Your task to perform on an android device: What's on my calendar tomorrow? Image 0: 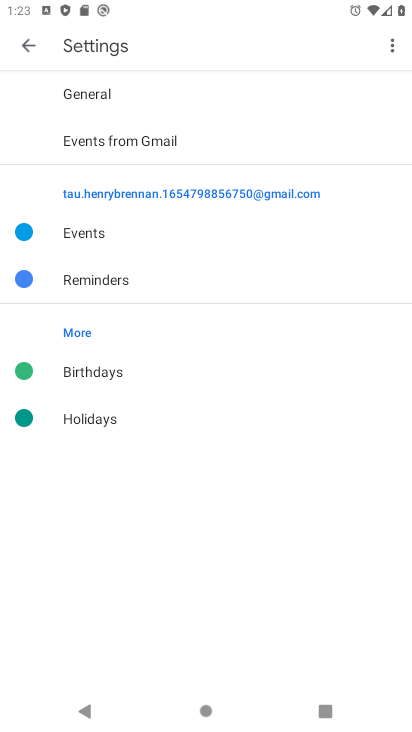
Step 0: press home button
Your task to perform on an android device: What's on my calendar tomorrow? Image 1: 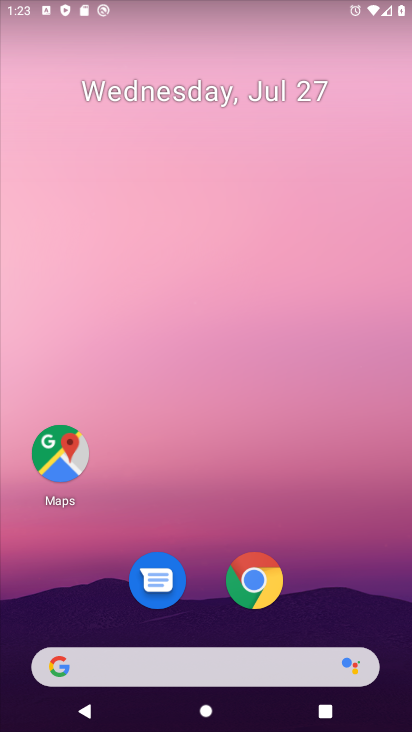
Step 1: drag from (250, 693) to (405, 61)
Your task to perform on an android device: What's on my calendar tomorrow? Image 2: 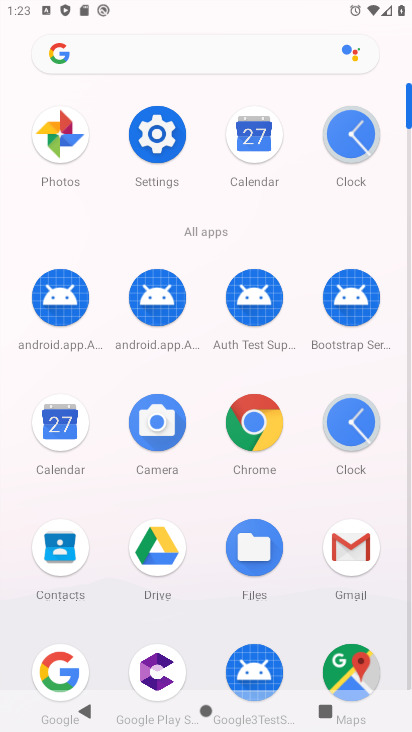
Step 2: click (63, 425)
Your task to perform on an android device: What's on my calendar tomorrow? Image 3: 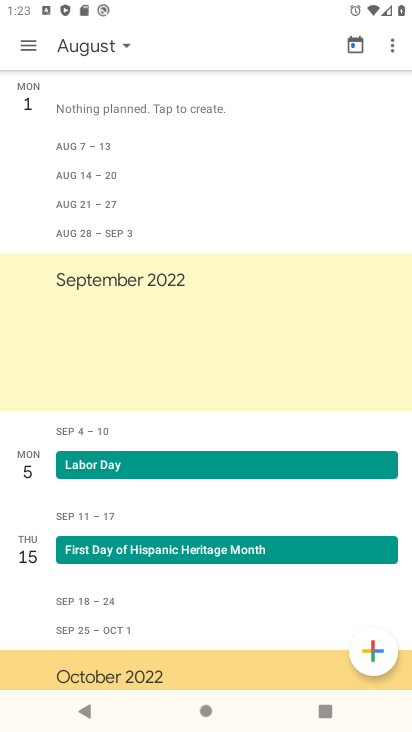
Step 3: click (27, 51)
Your task to perform on an android device: What's on my calendar tomorrow? Image 4: 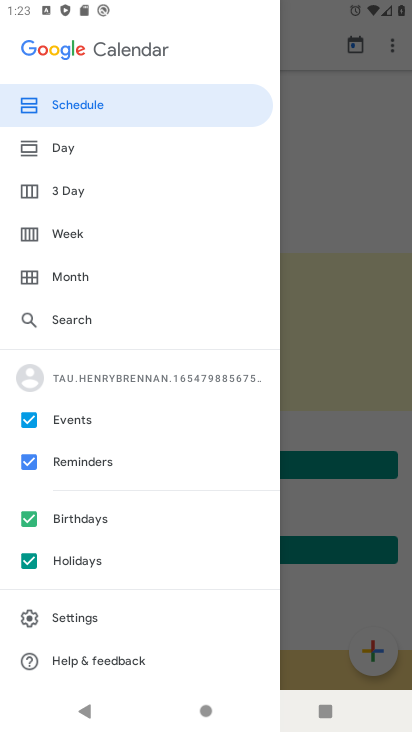
Step 4: click (66, 279)
Your task to perform on an android device: What's on my calendar tomorrow? Image 5: 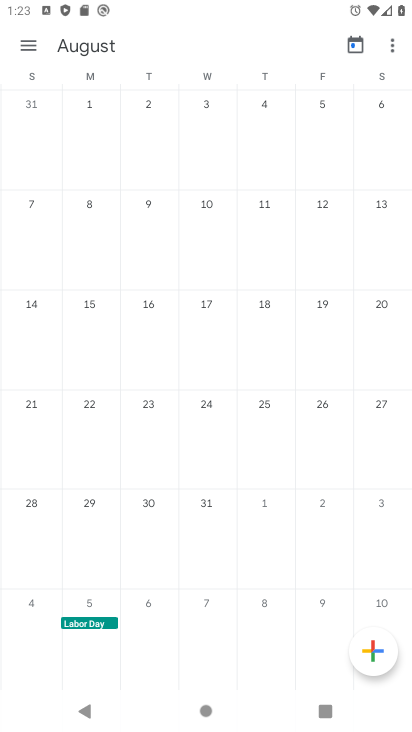
Step 5: drag from (34, 389) to (408, 249)
Your task to perform on an android device: What's on my calendar tomorrow? Image 6: 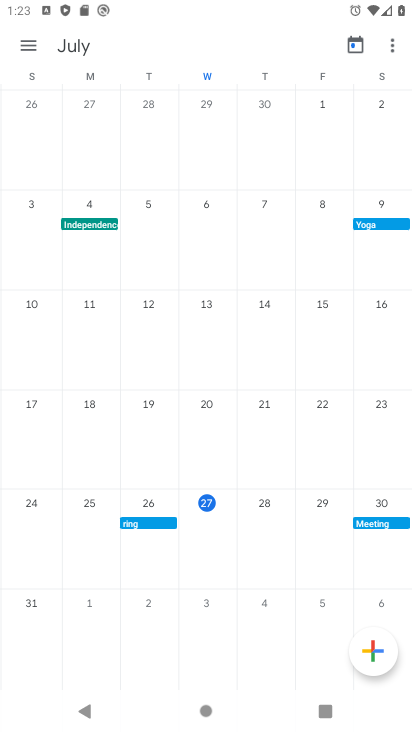
Step 6: click (267, 515)
Your task to perform on an android device: What's on my calendar tomorrow? Image 7: 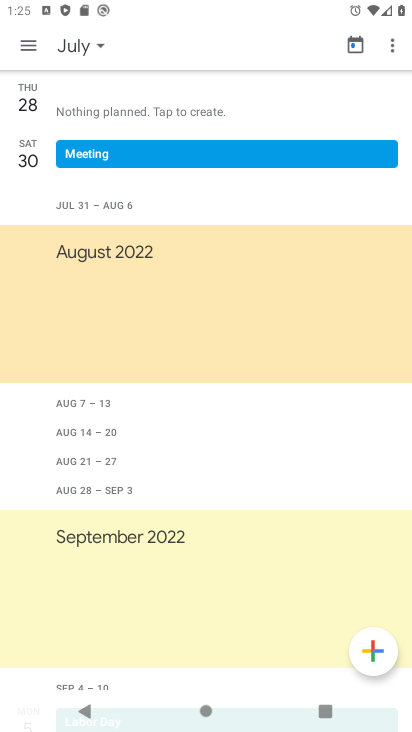
Step 7: task complete